Your task to perform on an android device: turn on improve location accuracy Image 0: 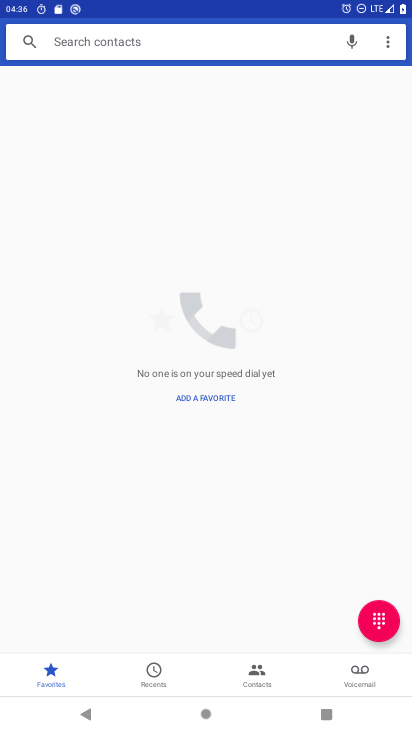
Step 0: press home button
Your task to perform on an android device: turn on improve location accuracy Image 1: 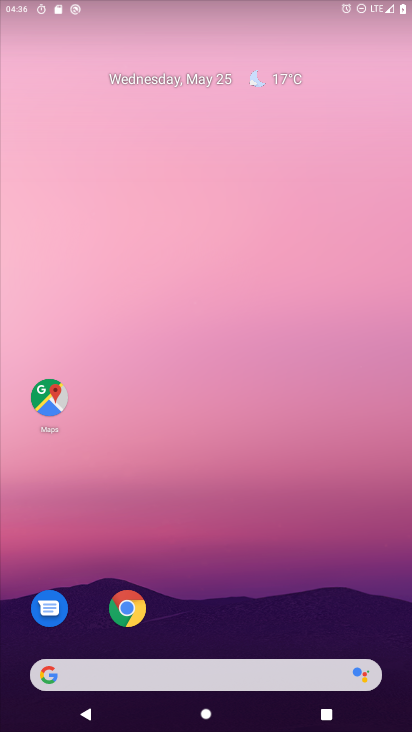
Step 1: drag from (340, 555) to (275, 92)
Your task to perform on an android device: turn on improve location accuracy Image 2: 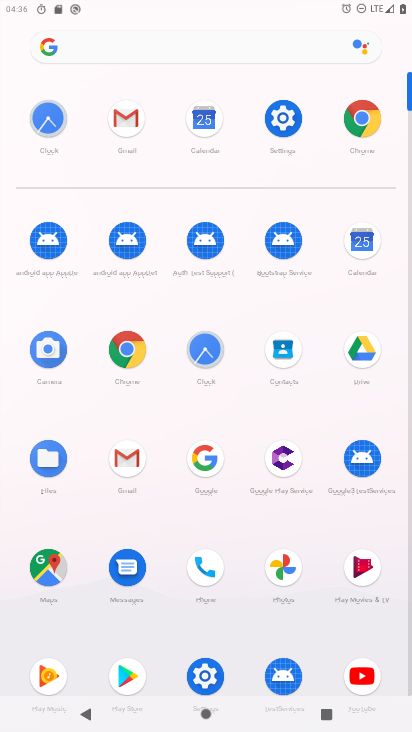
Step 2: click (274, 116)
Your task to perform on an android device: turn on improve location accuracy Image 3: 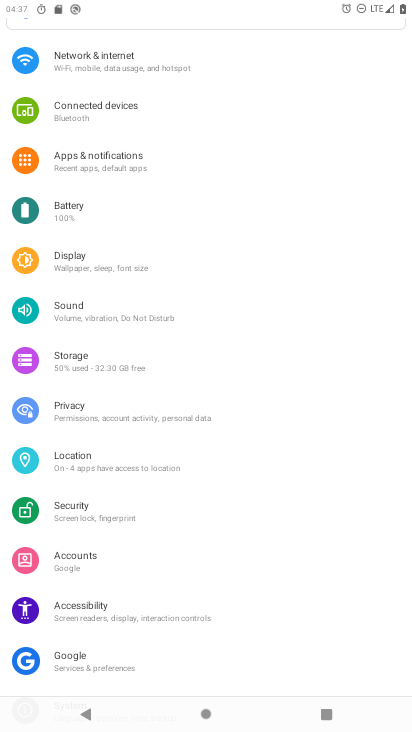
Step 3: drag from (138, 503) to (165, 211)
Your task to perform on an android device: turn on improve location accuracy Image 4: 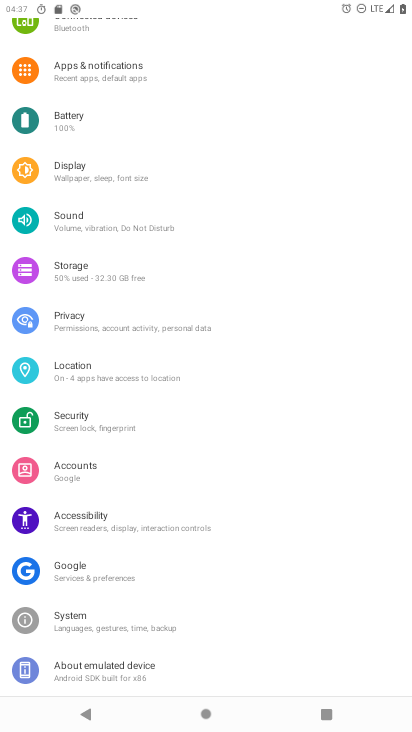
Step 4: click (90, 378)
Your task to perform on an android device: turn on improve location accuracy Image 5: 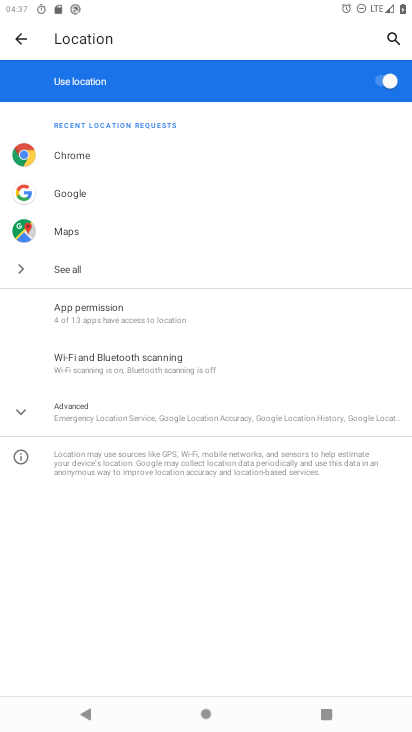
Step 5: click (149, 418)
Your task to perform on an android device: turn on improve location accuracy Image 6: 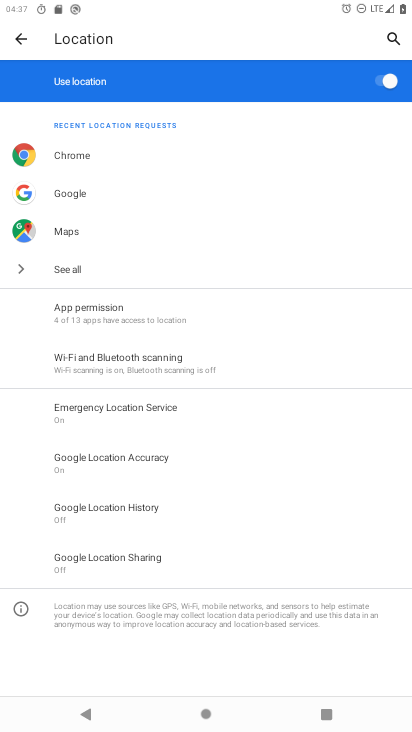
Step 6: click (120, 460)
Your task to perform on an android device: turn on improve location accuracy Image 7: 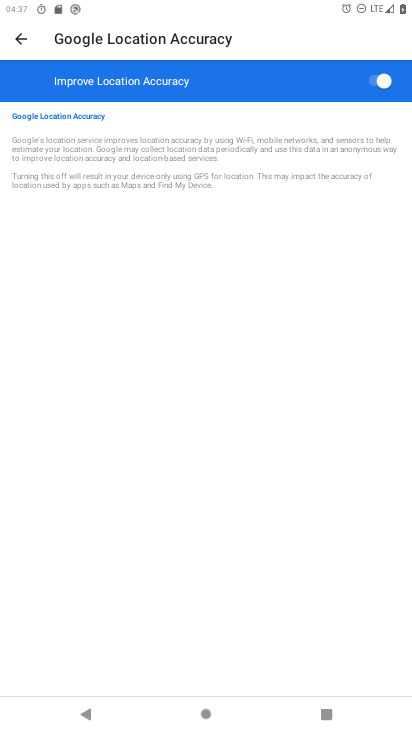
Step 7: task complete